Your task to perform on an android device: Open my contact list Image 0: 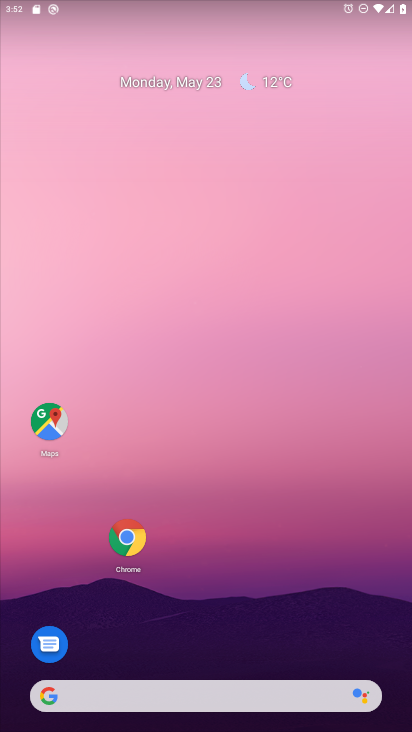
Step 0: drag from (282, 585) to (277, 143)
Your task to perform on an android device: Open my contact list Image 1: 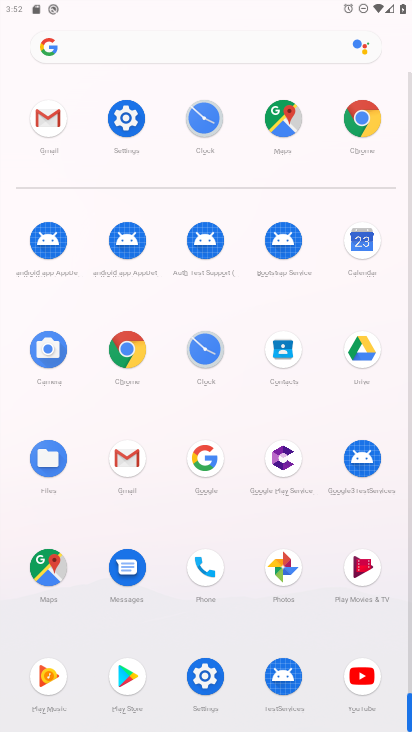
Step 1: click (276, 353)
Your task to perform on an android device: Open my contact list Image 2: 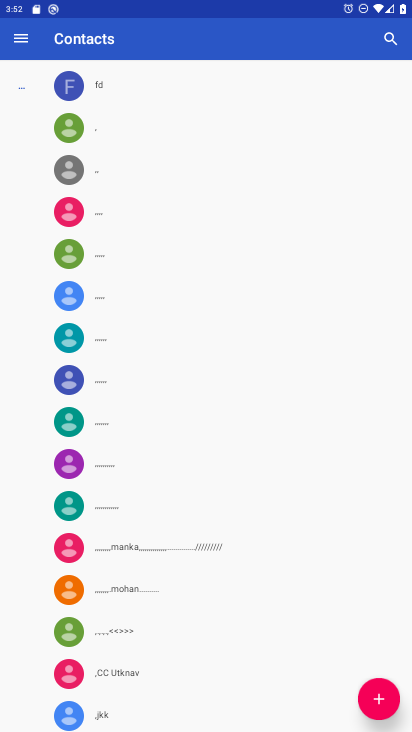
Step 2: task complete